Your task to perform on an android device: Go to Yahoo.com Image 0: 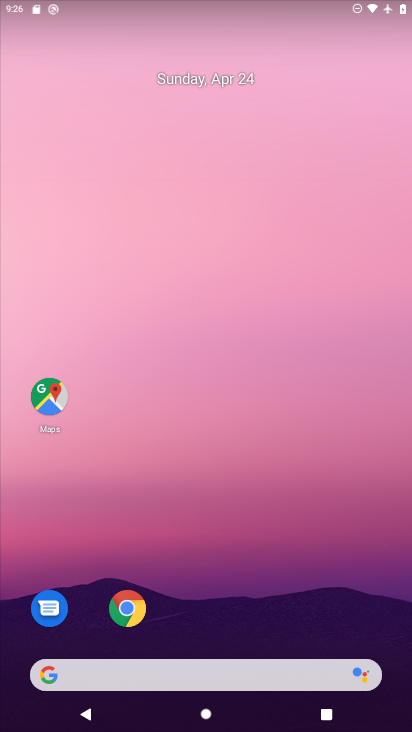
Step 0: click (133, 599)
Your task to perform on an android device: Go to Yahoo.com Image 1: 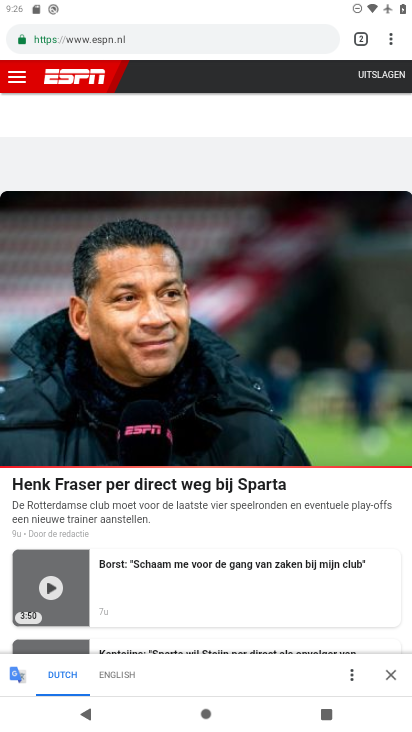
Step 1: click (362, 29)
Your task to perform on an android device: Go to Yahoo.com Image 2: 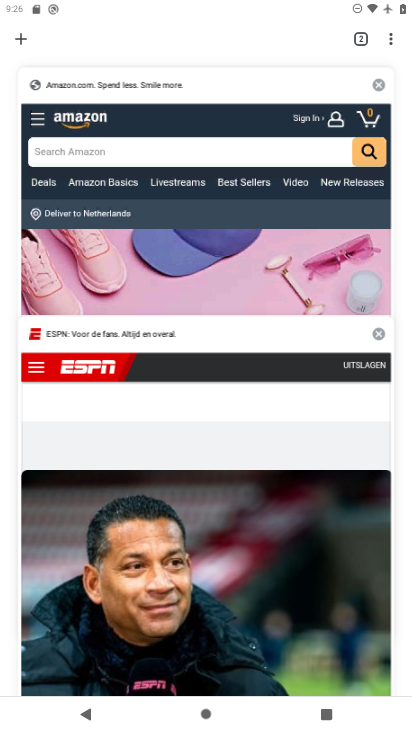
Step 2: click (25, 41)
Your task to perform on an android device: Go to Yahoo.com Image 3: 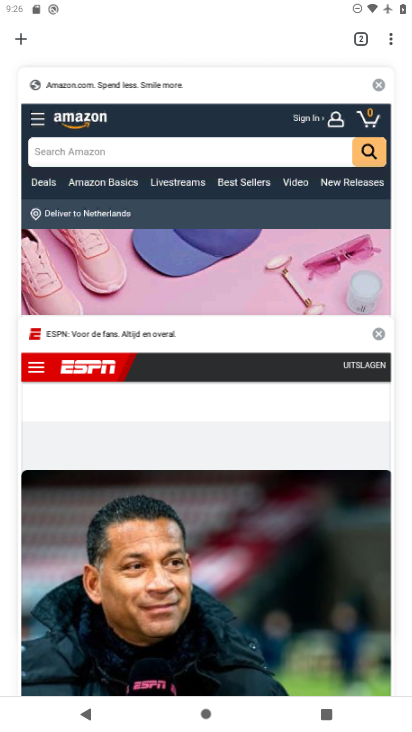
Step 3: click (26, 41)
Your task to perform on an android device: Go to Yahoo.com Image 4: 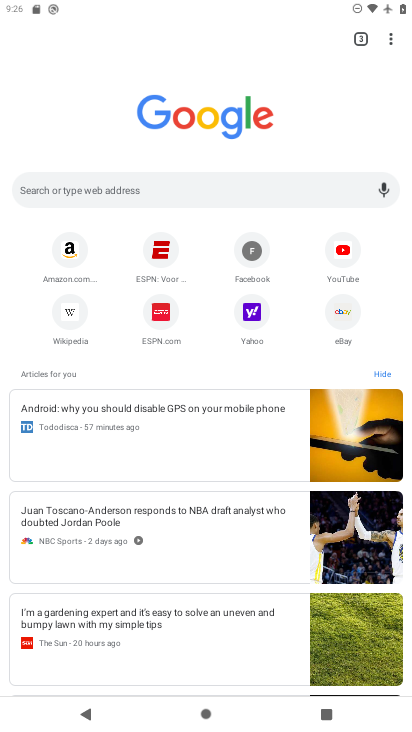
Step 4: click (250, 309)
Your task to perform on an android device: Go to Yahoo.com Image 5: 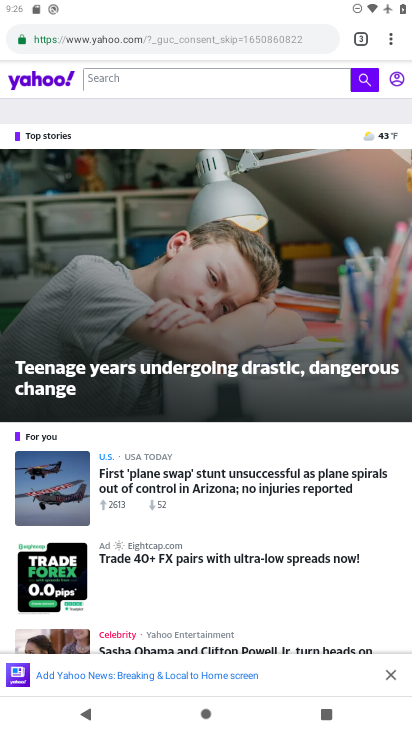
Step 5: task complete